Your task to perform on an android device: see tabs open on other devices in the chrome app Image 0: 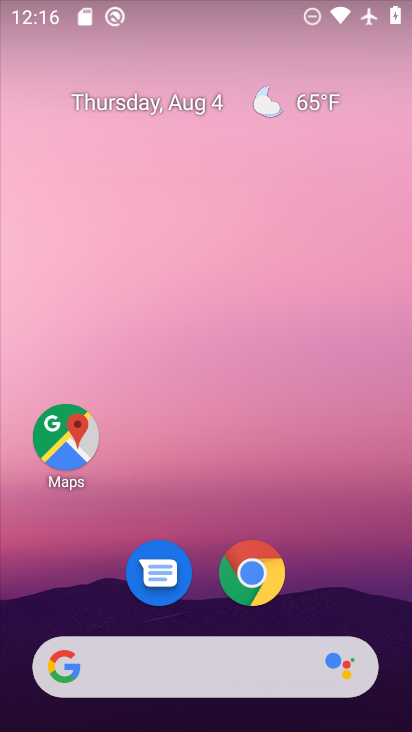
Step 0: click (253, 585)
Your task to perform on an android device: see tabs open on other devices in the chrome app Image 1: 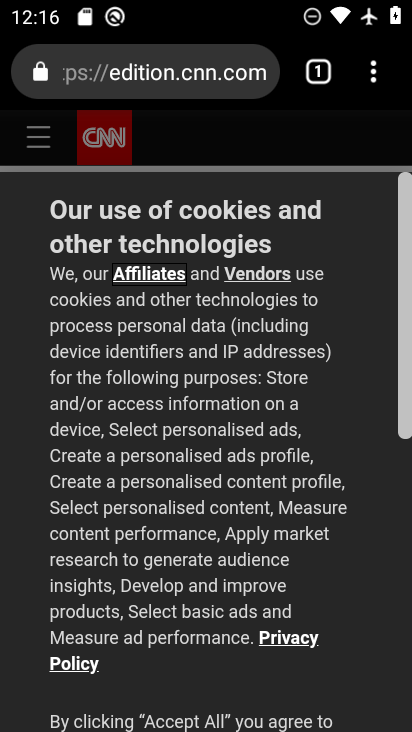
Step 1: task complete